Your task to perform on an android device: open sync settings in chrome Image 0: 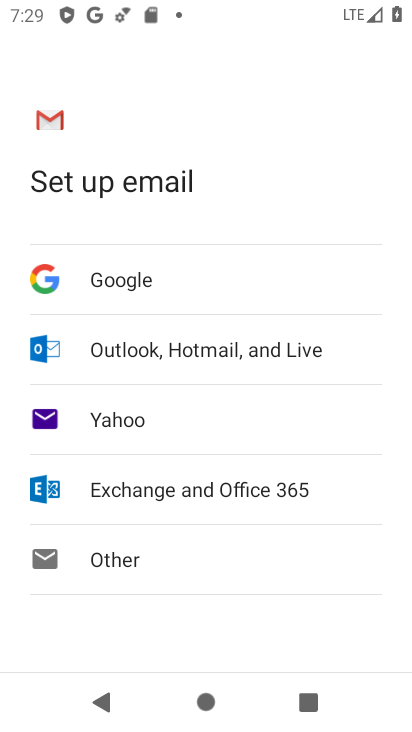
Step 0: press home button
Your task to perform on an android device: open sync settings in chrome Image 1: 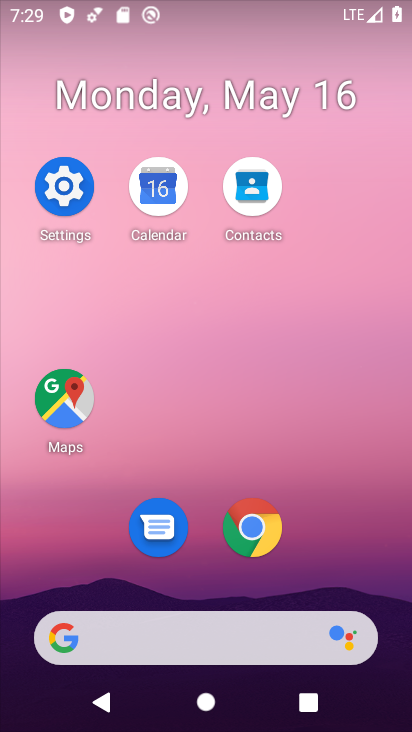
Step 1: click (250, 516)
Your task to perform on an android device: open sync settings in chrome Image 2: 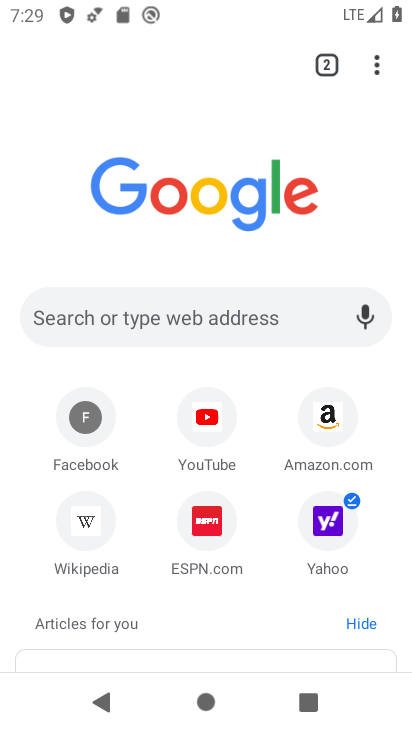
Step 2: click (386, 35)
Your task to perform on an android device: open sync settings in chrome Image 3: 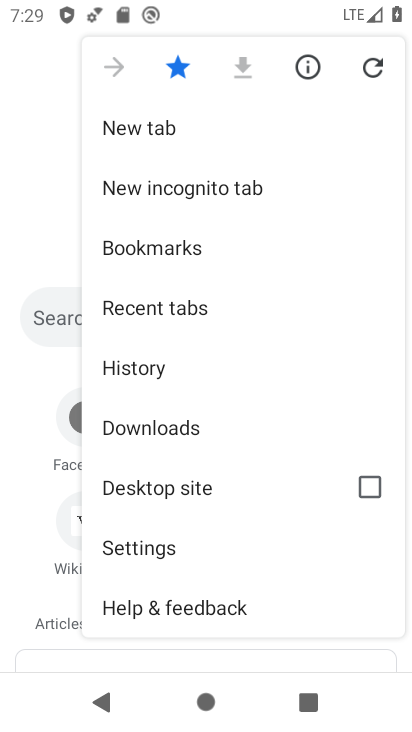
Step 3: drag from (276, 512) to (268, 73)
Your task to perform on an android device: open sync settings in chrome Image 4: 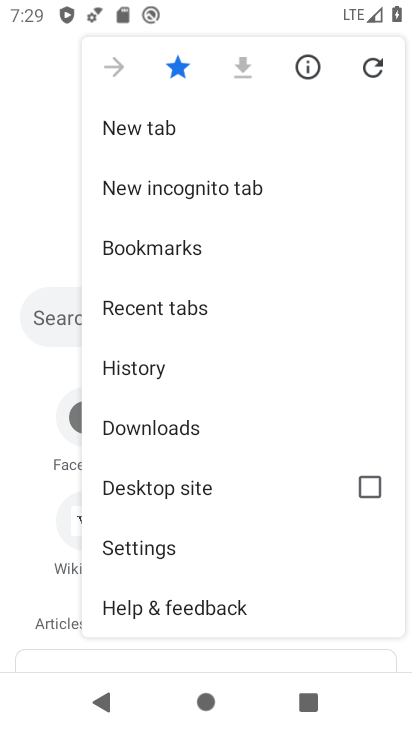
Step 4: click (204, 554)
Your task to perform on an android device: open sync settings in chrome Image 5: 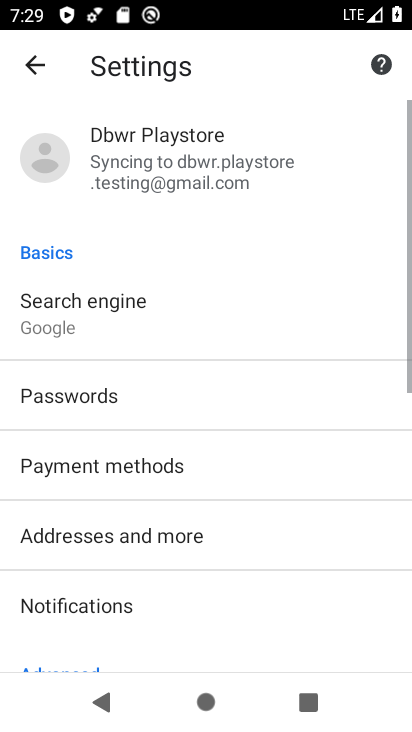
Step 5: drag from (204, 554) to (238, 118)
Your task to perform on an android device: open sync settings in chrome Image 6: 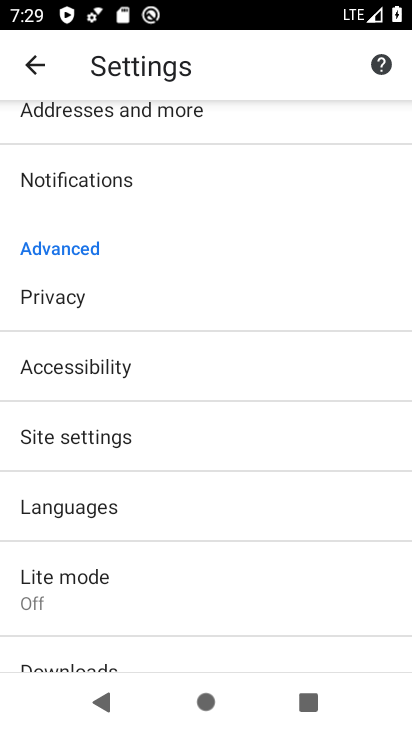
Step 6: click (145, 431)
Your task to perform on an android device: open sync settings in chrome Image 7: 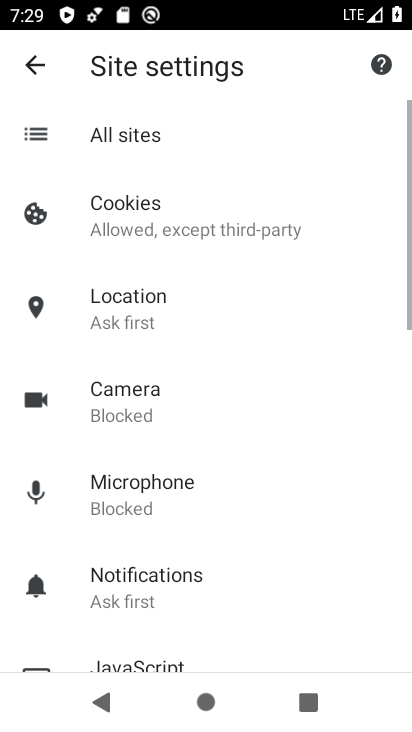
Step 7: drag from (175, 585) to (240, 142)
Your task to perform on an android device: open sync settings in chrome Image 8: 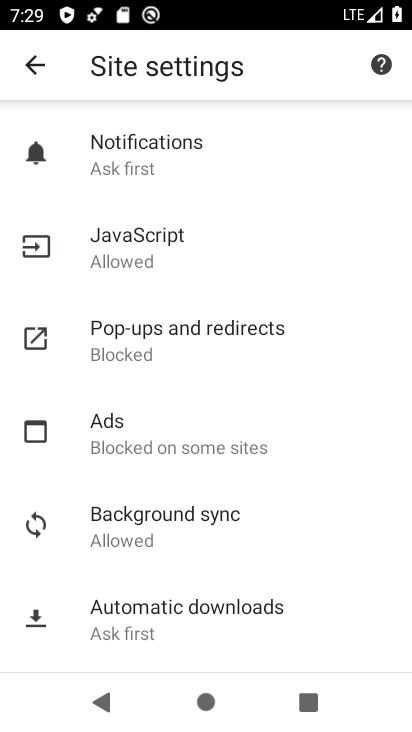
Step 8: click (252, 494)
Your task to perform on an android device: open sync settings in chrome Image 9: 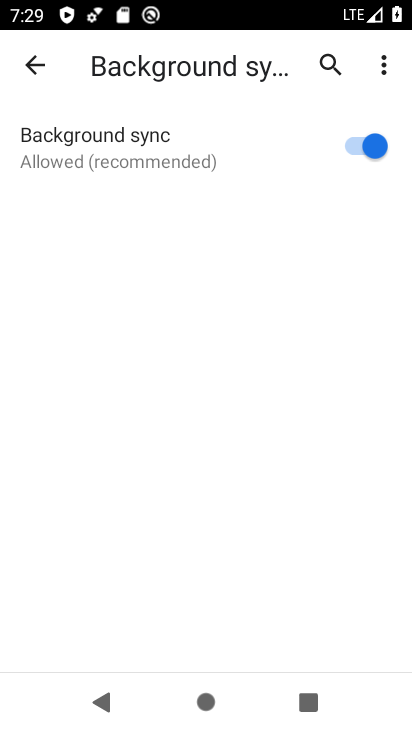
Step 9: task complete